Your task to perform on an android device: toggle priority inbox in the gmail app Image 0: 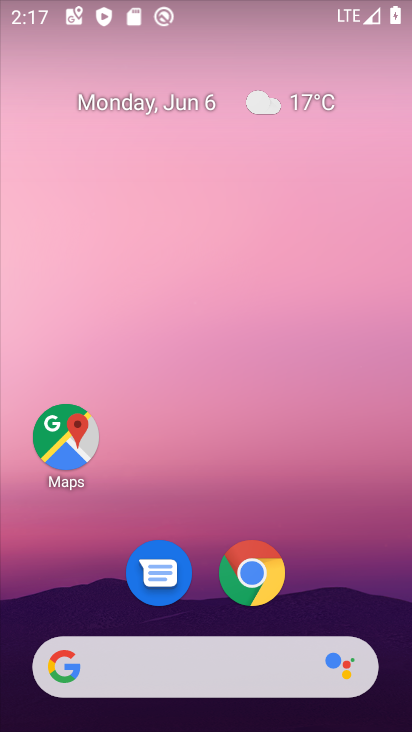
Step 0: drag from (348, 575) to (348, 118)
Your task to perform on an android device: toggle priority inbox in the gmail app Image 1: 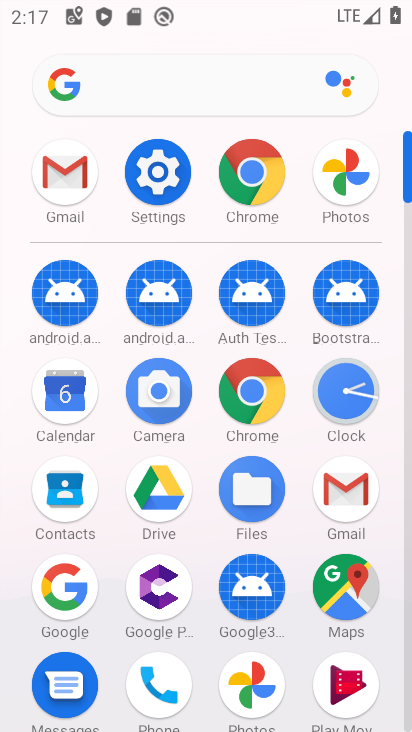
Step 1: click (343, 509)
Your task to perform on an android device: toggle priority inbox in the gmail app Image 2: 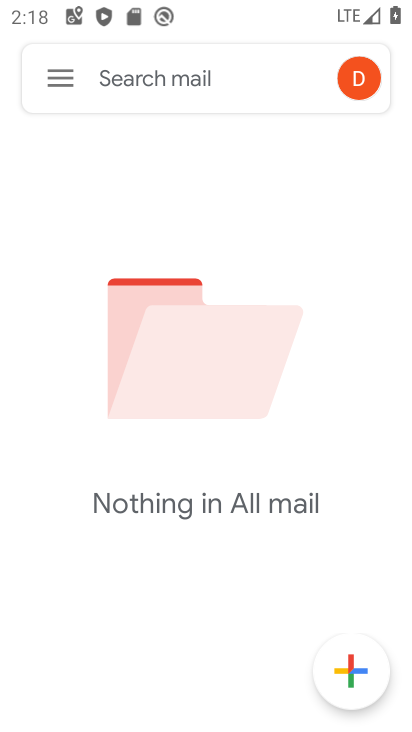
Step 2: click (66, 78)
Your task to perform on an android device: toggle priority inbox in the gmail app Image 3: 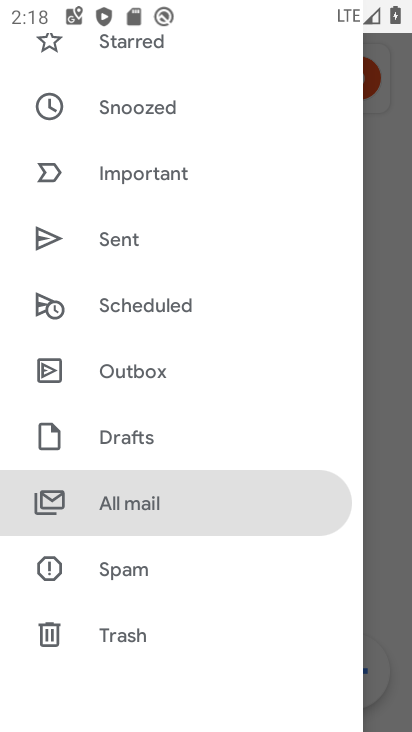
Step 3: drag from (269, 222) to (272, 341)
Your task to perform on an android device: toggle priority inbox in the gmail app Image 4: 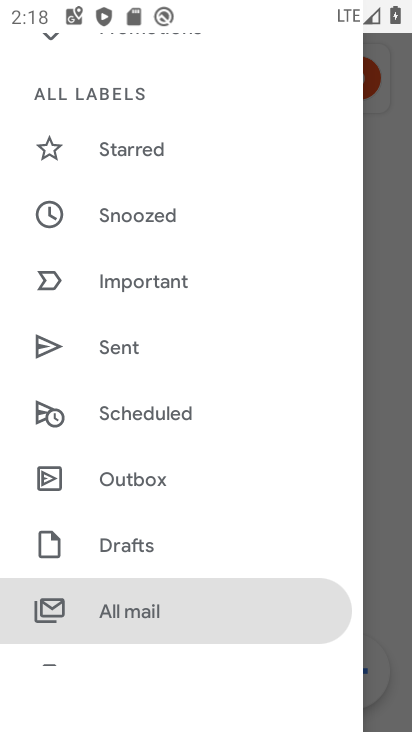
Step 4: drag from (260, 165) to (261, 304)
Your task to perform on an android device: toggle priority inbox in the gmail app Image 5: 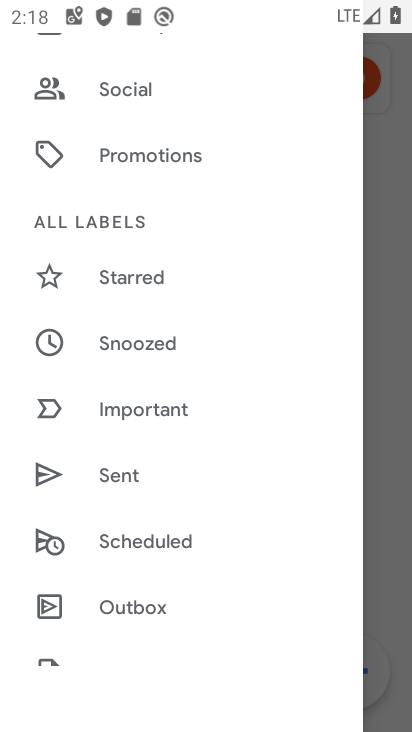
Step 5: drag from (257, 212) to (272, 323)
Your task to perform on an android device: toggle priority inbox in the gmail app Image 6: 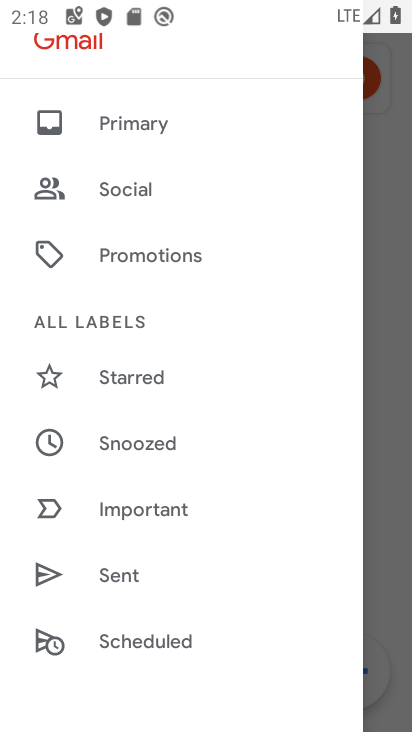
Step 6: drag from (266, 218) to (298, 384)
Your task to perform on an android device: toggle priority inbox in the gmail app Image 7: 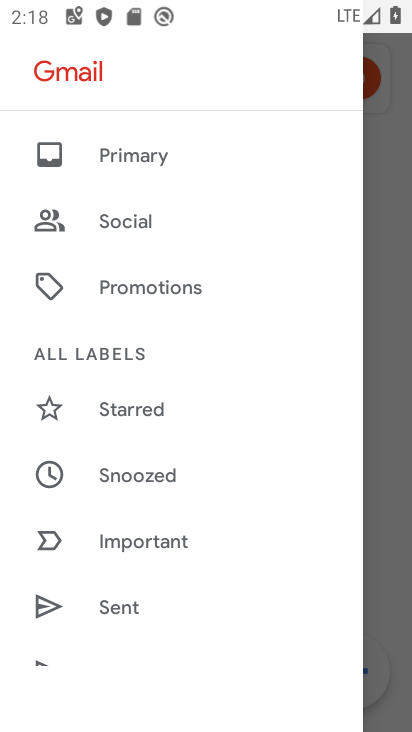
Step 7: drag from (270, 216) to (268, 396)
Your task to perform on an android device: toggle priority inbox in the gmail app Image 8: 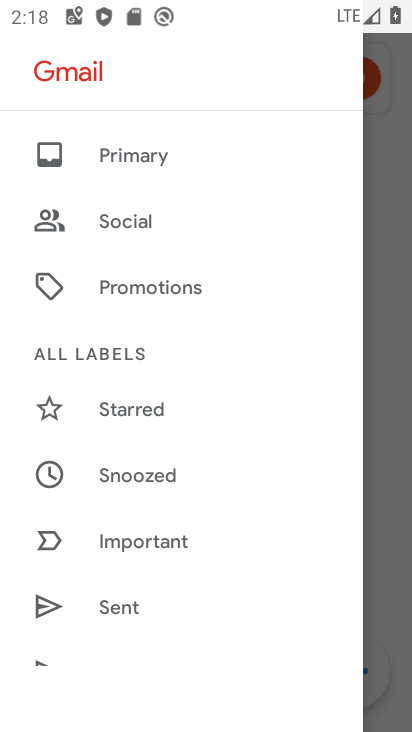
Step 8: drag from (279, 498) to (281, 386)
Your task to perform on an android device: toggle priority inbox in the gmail app Image 9: 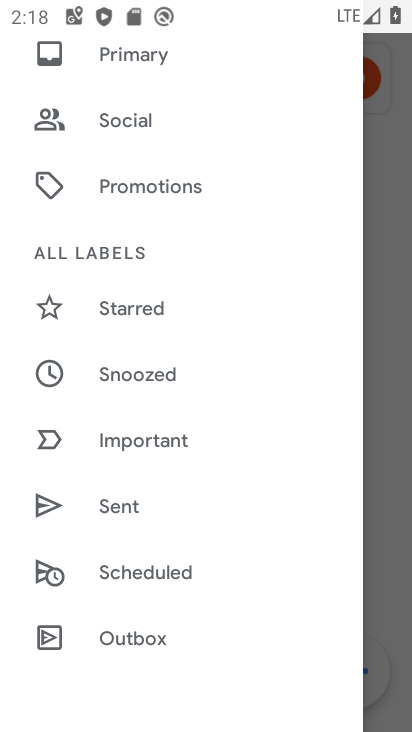
Step 9: drag from (289, 532) to (290, 342)
Your task to perform on an android device: toggle priority inbox in the gmail app Image 10: 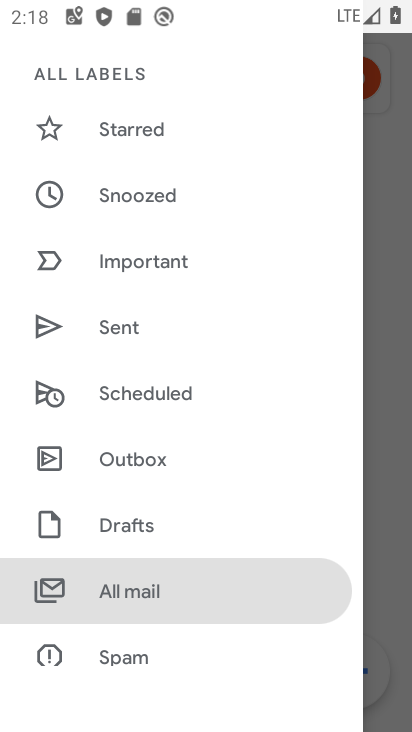
Step 10: drag from (266, 533) to (261, 280)
Your task to perform on an android device: toggle priority inbox in the gmail app Image 11: 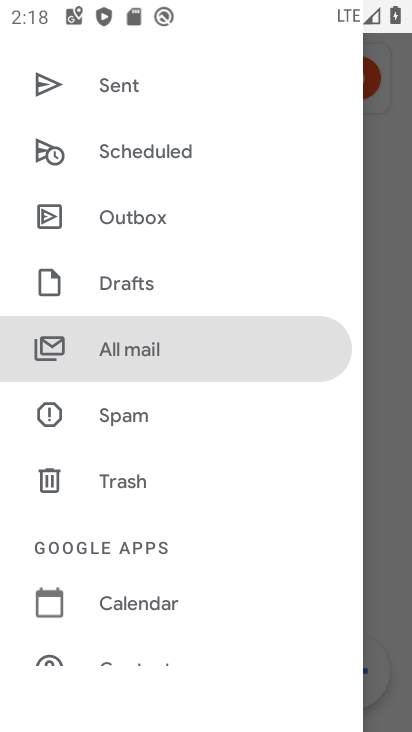
Step 11: drag from (242, 587) to (252, 409)
Your task to perform on an android device: toggle priority inbox in the gmail app Image 12: 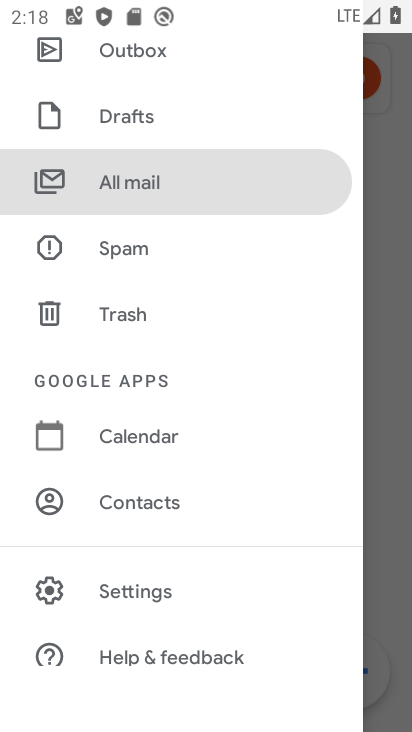
Step 12: click (219, 601)
Your task to perform on an android device: toggle priority inbox in the gmail app Image 13: 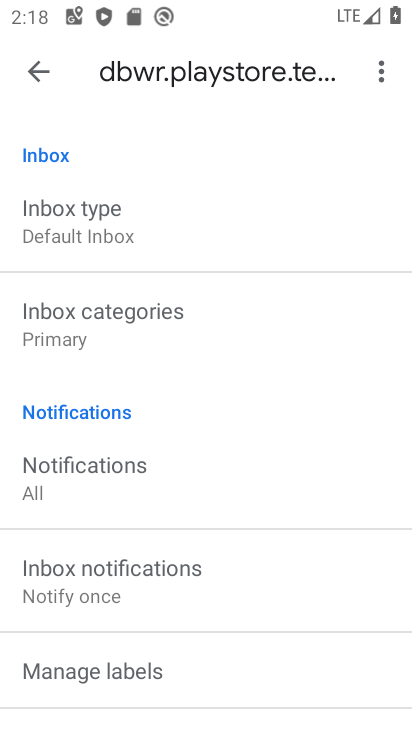
Step 13: click (128, 241)
Your task to perform on an android device: toggle priority inbox in the gmail app Image 14: 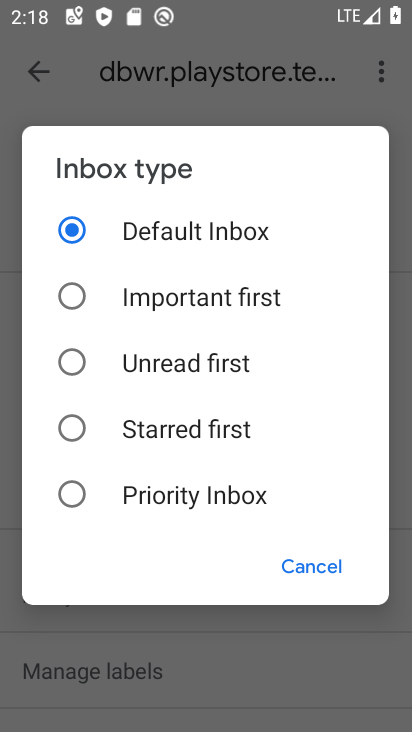
Step 14: click (184, 506)
Your task to perform on an android device: toggle priority inbox in the gmail app Image 15: 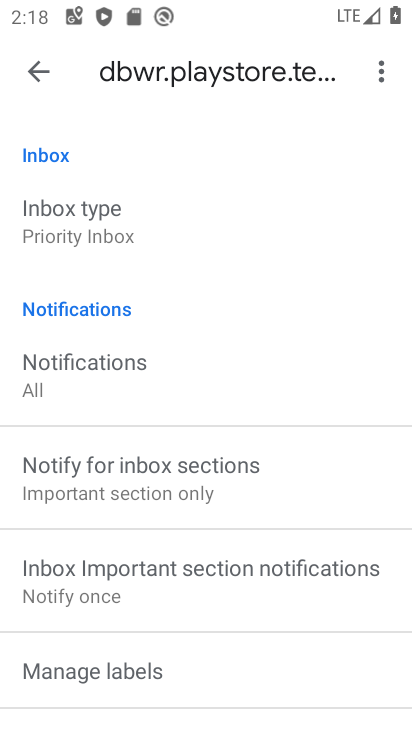
Step 15: task complete